Your task to perform on an android device: Open ESPN.com Image 0: 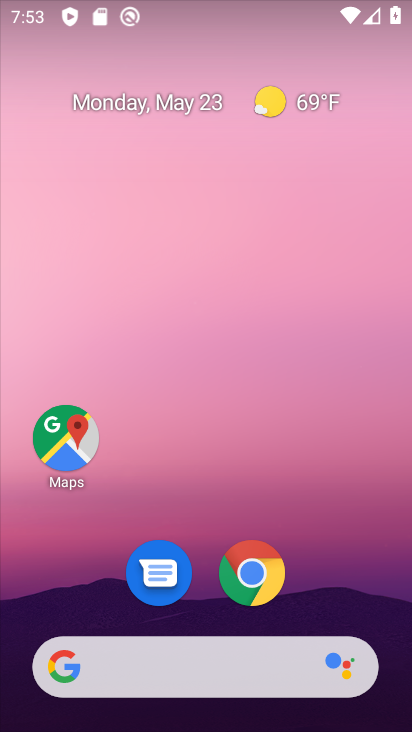
Step 0: drag from (320, 589) to (321, 169)
Your task to perform on an android device: Open ESPN.com Image 1: 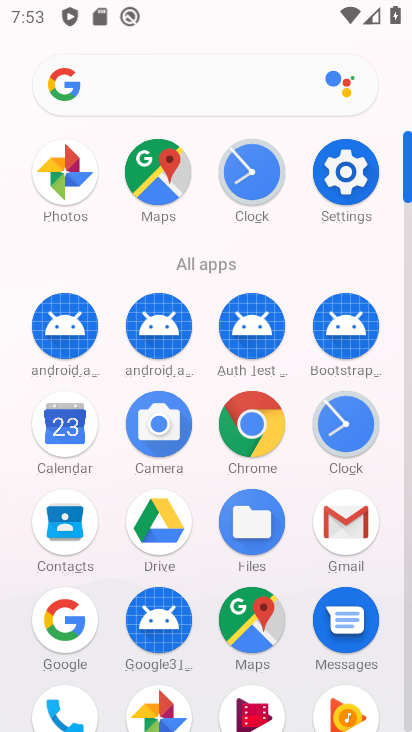
Step 1: click (60, 629)
Your task to perform on an android device: Open ESPN.com Image 2: 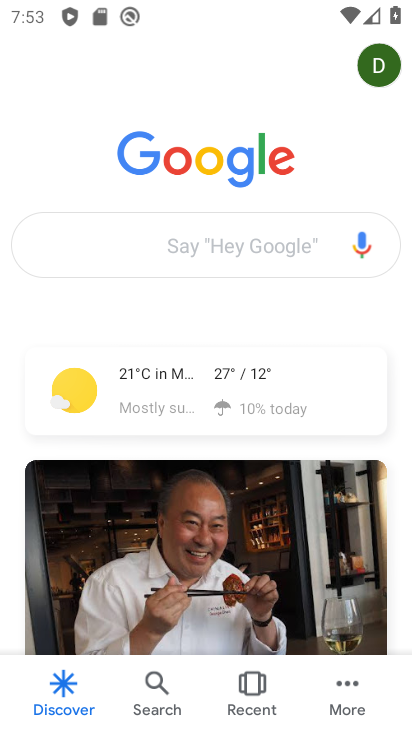
Step 2: click (154, 267)
Your task to perform on an android device: Open ESPN.com Image 3: 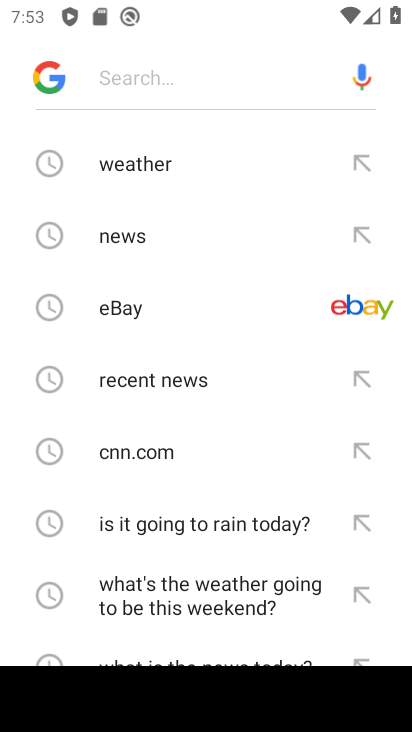
Step 3: drag from (192, 504) to (209, 144)
Your task to perform on an android device: Open ESPN.com Image 4: 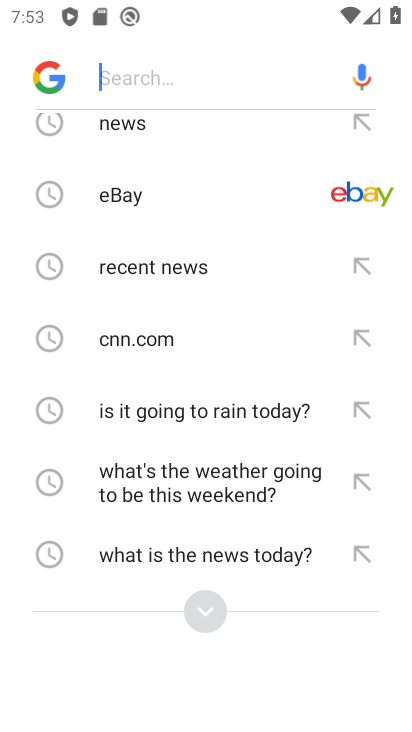
Step 4: type "espn.com"
Your task to perform on an android device: Open ESPN.com Image 5: 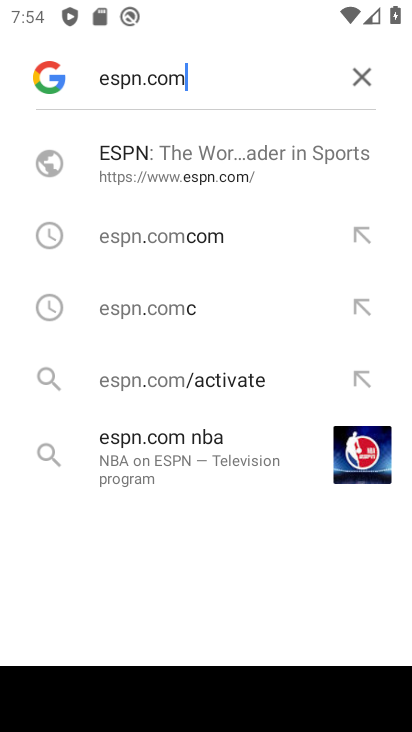
Step 5: click (163, 155)
Your task to perform on an android device: Open ESPN.com Image 6: 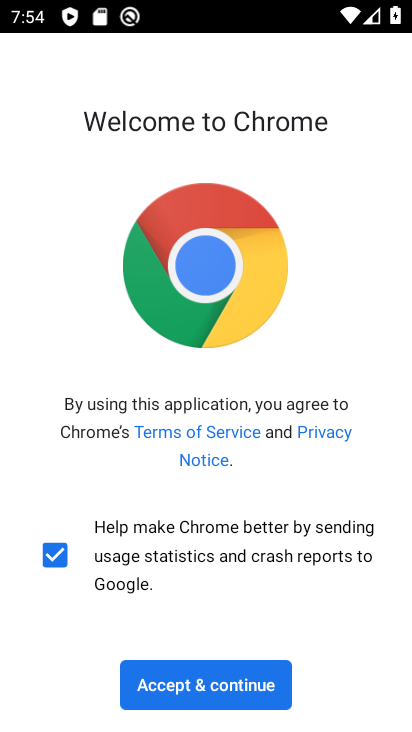
Step 6: click (337, 671)
Your task to perform on an android device: Open ESPN.com Image 7: 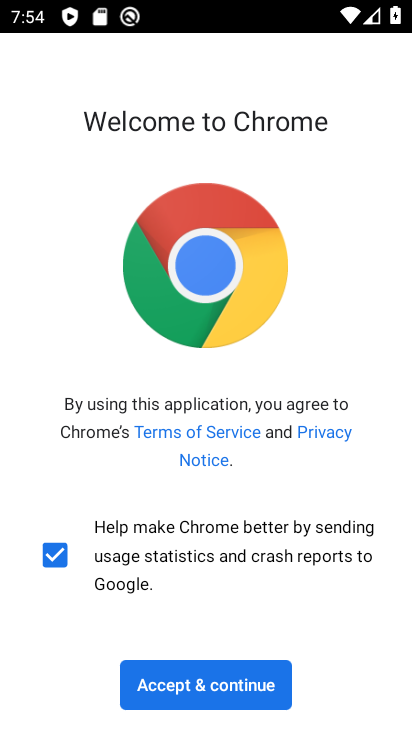
Step 7: click (247, 670)
Your task to perform on an android device: Open ESPN.com Image 8: 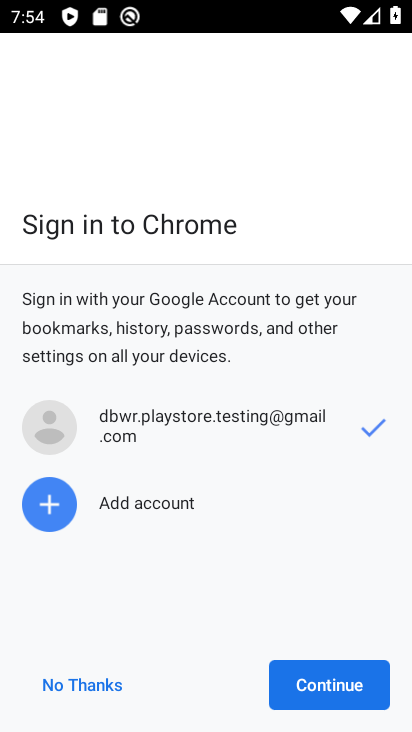
Step 8: click (328, 704)
Your task to perform on an android device: Open ESPN.com Image 9: 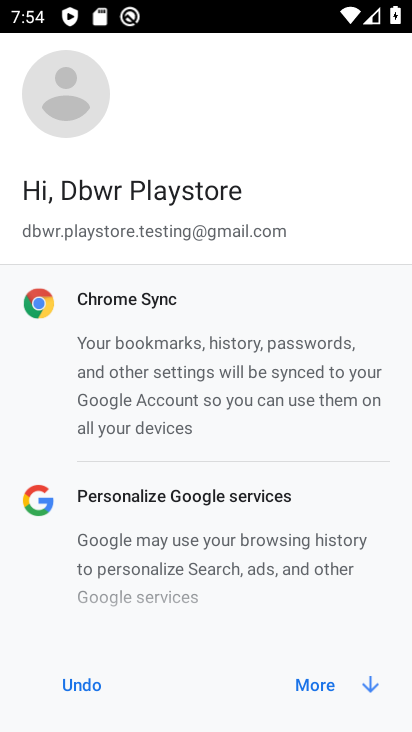
Step 9: click (319, 693)
Your task to perform on an android device: Open ESPN.com Image 10: 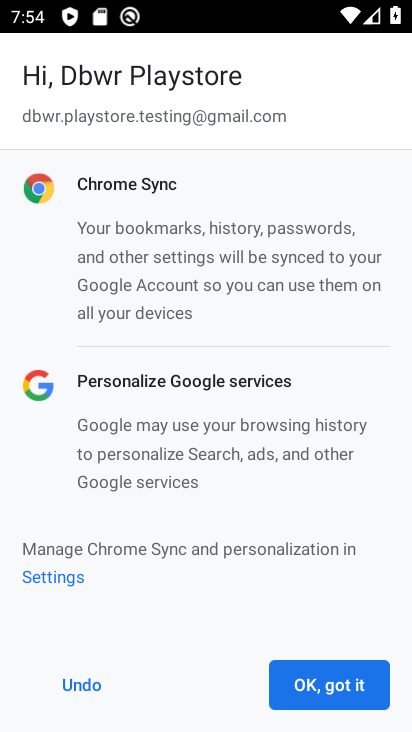
Step 10: click (319, 693)
Your task to perform on an android device: Open ESPN.com Image 11: 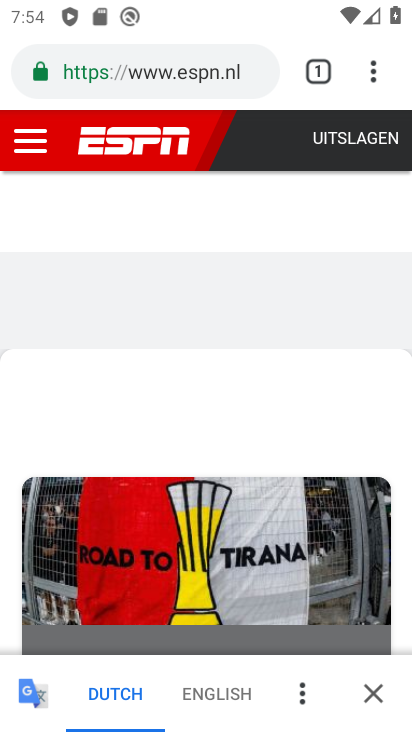
Step 11: task complete